Your task to perform on an android device: see sites visited before in the chrome app Image 0: 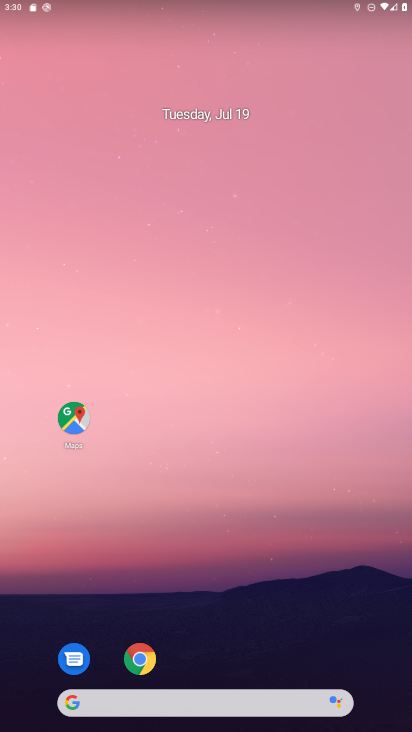
Step 0: click (139, 656)
Your task to perform on an android device: see sites visited before in the chrome app Image 1: 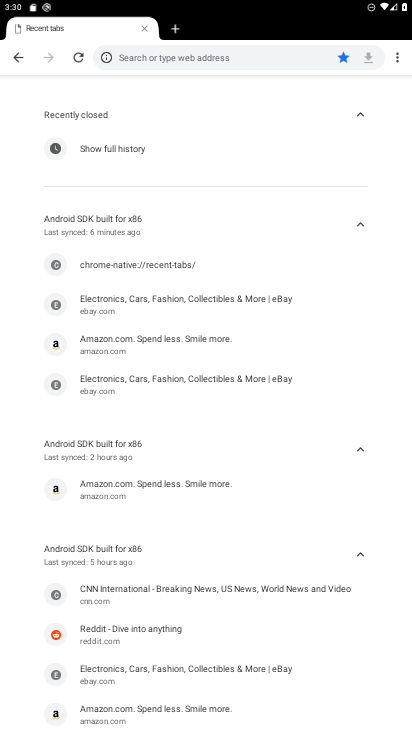
Step 1: click (398, 56)
Your task to perform on an android device: see sites visited before in the chrome app Image 2: 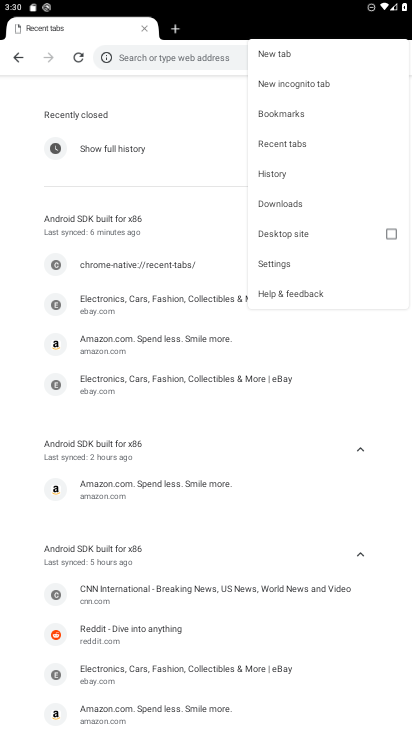
Step 2: click (275, 177)
Your task to perform on an android device: see sites visited before in the chrome app Image 3: 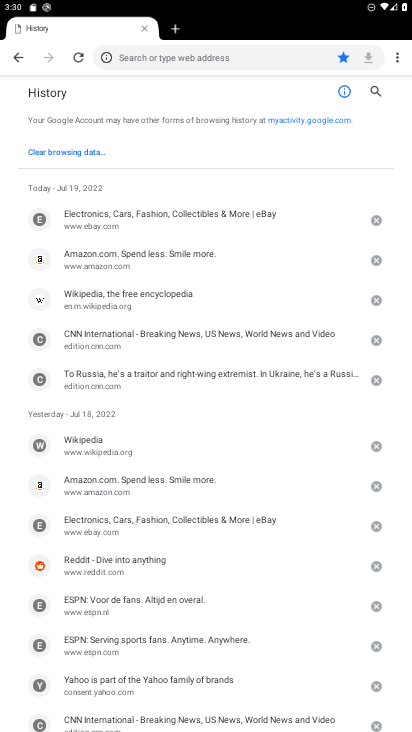
Step 3: task complete